Your task to perform on an android device: change keyboard looks Image 0: 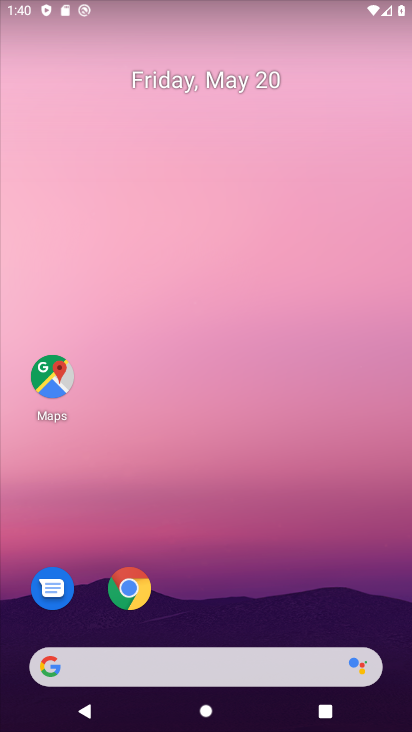
Step 0: drag from (255, 679) to (181, 84)
Your task to perform on an android device: change keyboard looks Image 1: 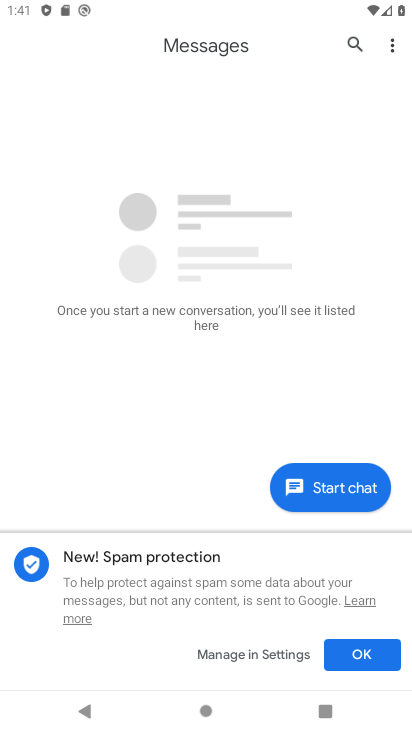
Step 1: press back button
Your task to perform on an android device: change keyboard looks Image 2: 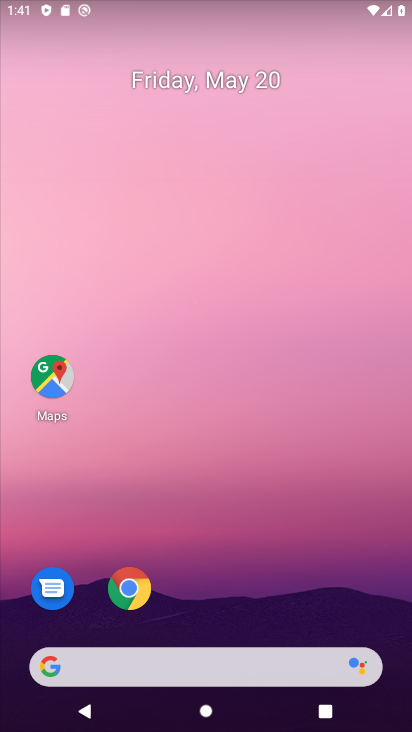
Step 2: drag from (264, 698) to (213, 19)
Your task to perform on an android device: change keyboard looks Image 3: 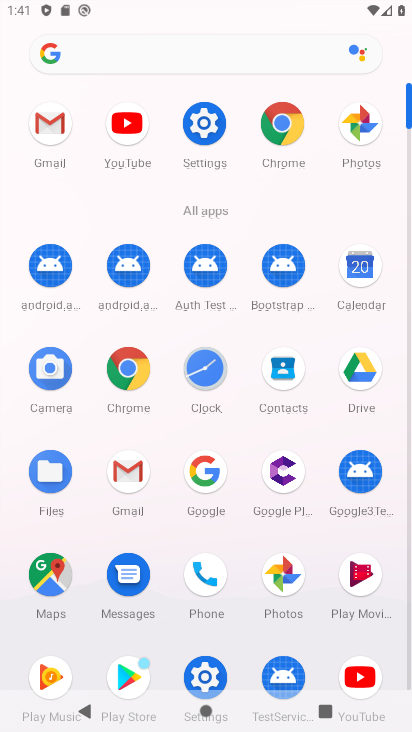
Step 3: click (202, 673)
Your task to perform on an android device: change keyboard looks Image 4: 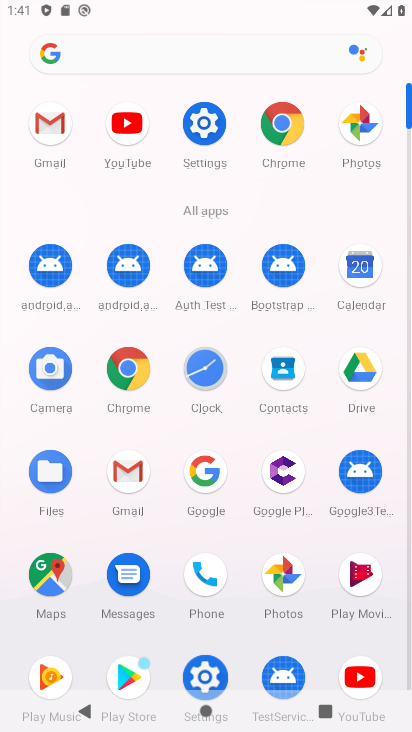
Step 4: click (202, 673)
Your task to perform on an android device: change keyboard looks Image 5: 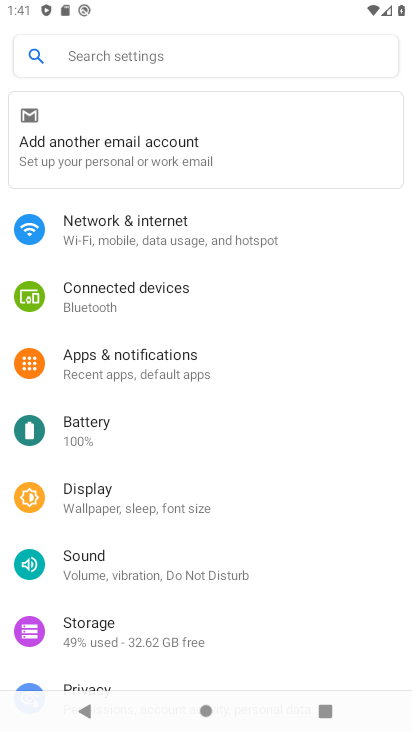
Step 5: drag from (197, 602) to (217, 110)
Your task to perform on an android device: change keyboard looks Image 6: 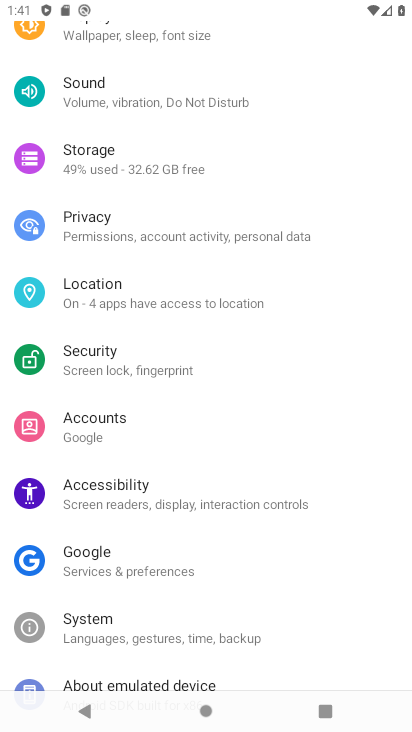
Step 6: click (102, 621)
Your task to perform on an android device: change keyboard looks Image 7: 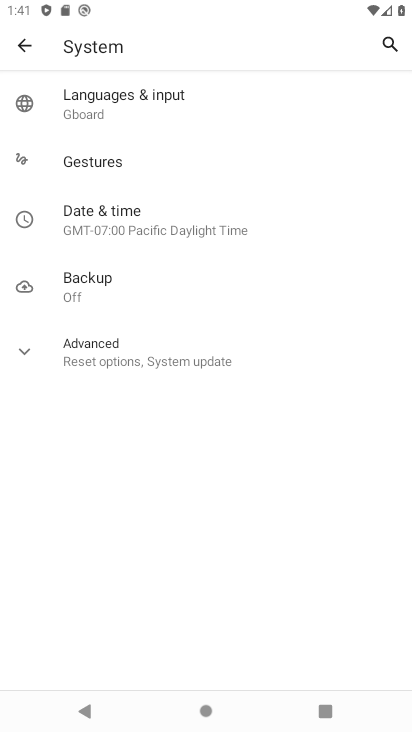
Step 7: click (81, 118)
Your task to perform on an android device: change keyboard looks Image 8: 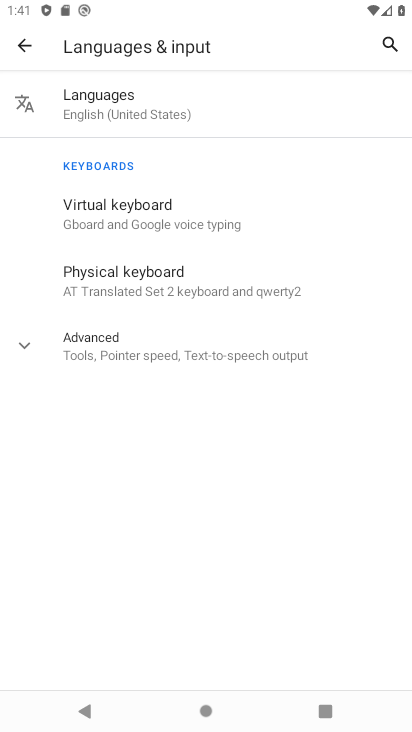
Step 8: click (114, 214)
Your task to perform on an android device: change keyboard looks Image 9: 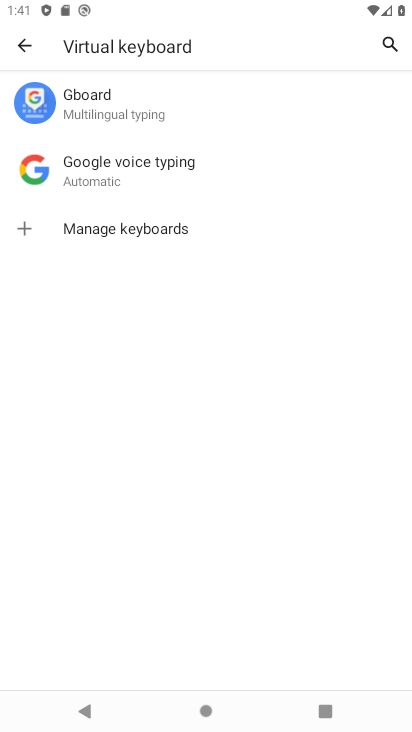
Step 9: click (72, 118)
Your task to perform on an android device: change keyboard looks Image 10: 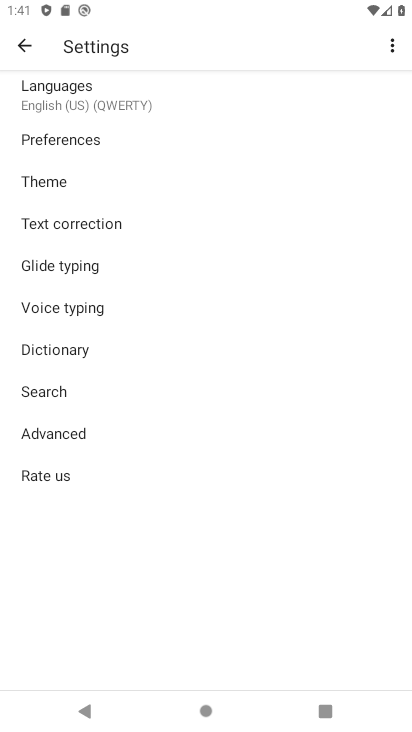
Step 10: click (40, 171)
Your task to perform on an android device: change keyboard looks Image 11: 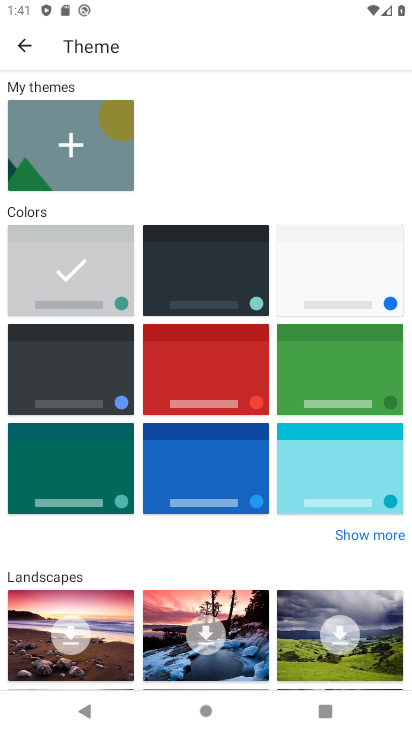
Step 11: click (91, 357)
Your task to perform on an android device: change keyboard looks Image 12: 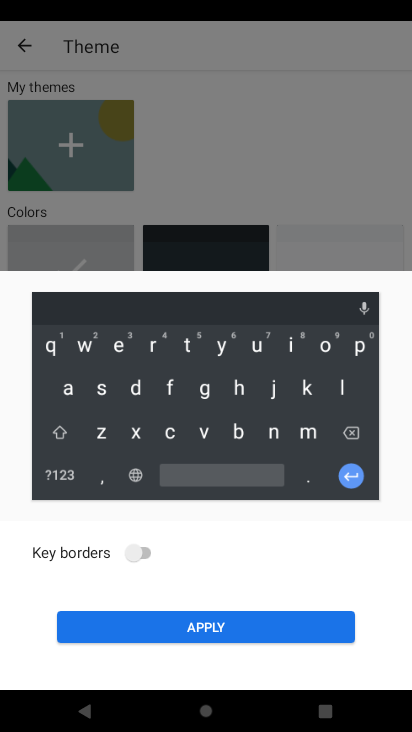
Step 12: click (206, 624)
Your task to perform on an android device: change keyboard looks Image 13: 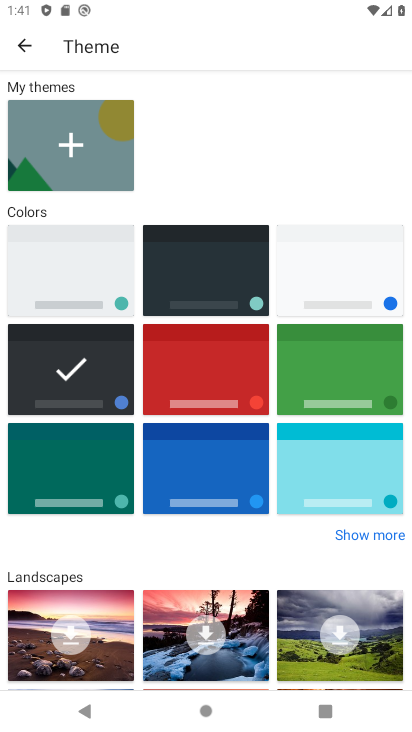
Step 13: task complete